Your task to perform on an android device: Open a new window in Chrome Image 0: 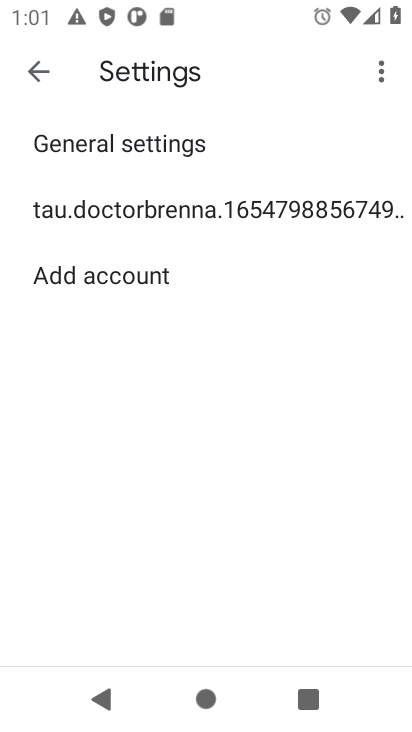
Step 0: press home button
Your task to perform on an android device: Open a new window in Chrome Image 1: 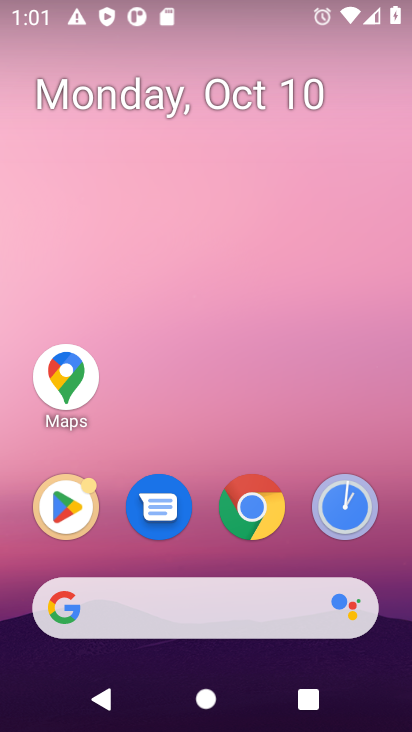
Step 1: drag from (395, 578) to (404, 109)
Your task to perform on an android device: Open a new window in Chrome Image 2: 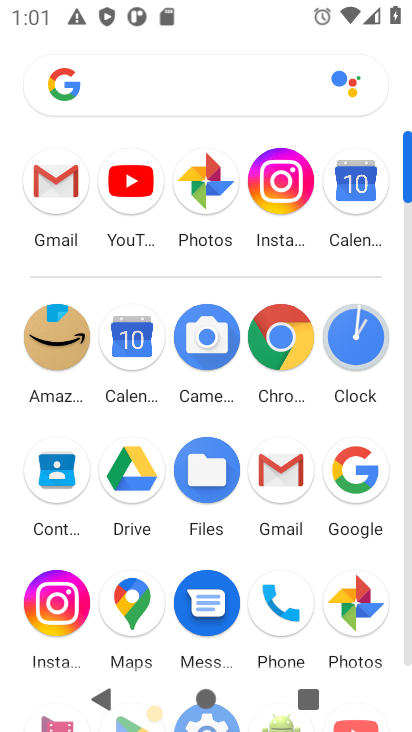
Step 2: click (285, 332)
Your task to perform on an android device: Open a new window in Chrome Image 3: 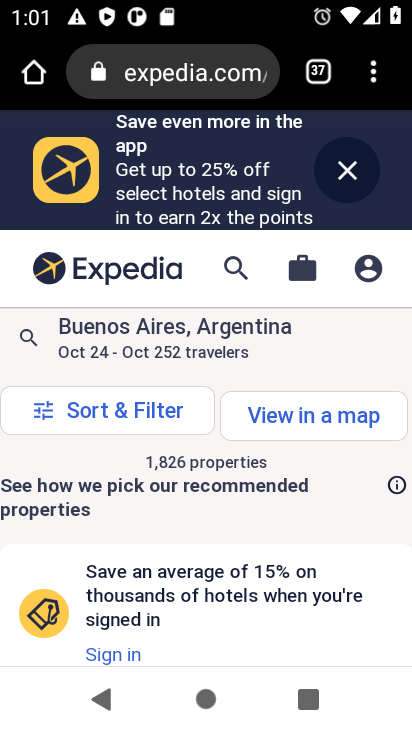
Step 3: click (375, 76)
Your task to perform on an android device: Open a new window in Chrome Image 4: 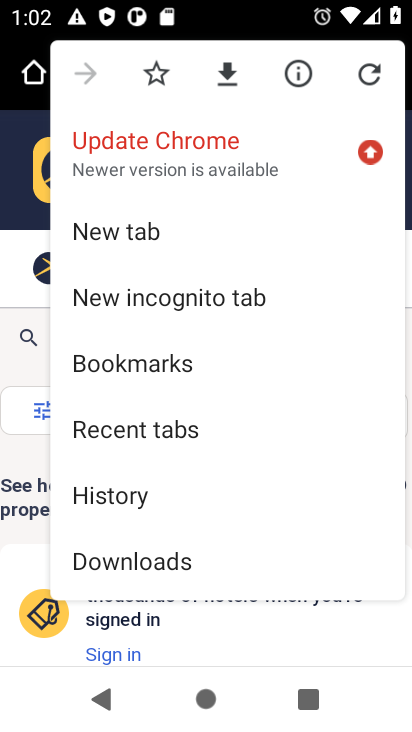
Step 4: click (132, 229)
Your task to perform on an android device: Open a new window in Chrome Image 5: 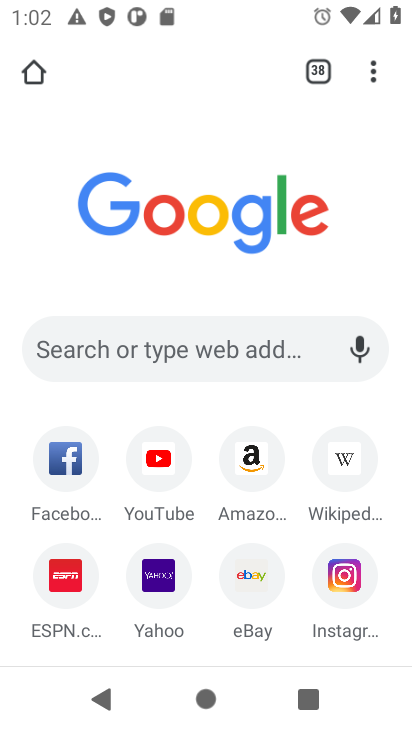
Step 5: task complete